Your task to perform on an android device: Go to sound settings Image 0: 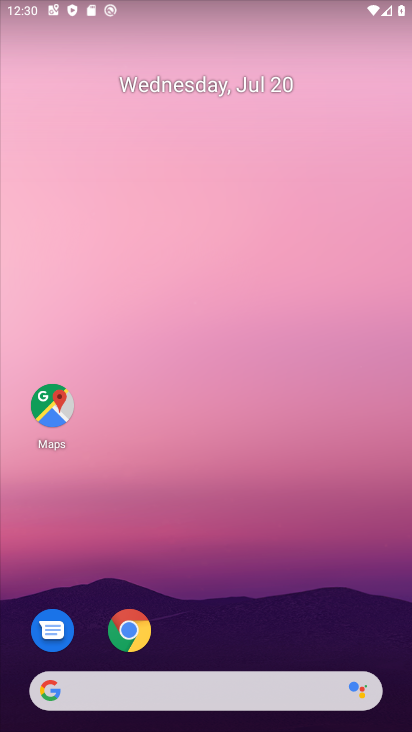
Step 0: drag from (226, 611) to (233, 205)
Your task to perform on an android device: Go to sound settings Image 1: 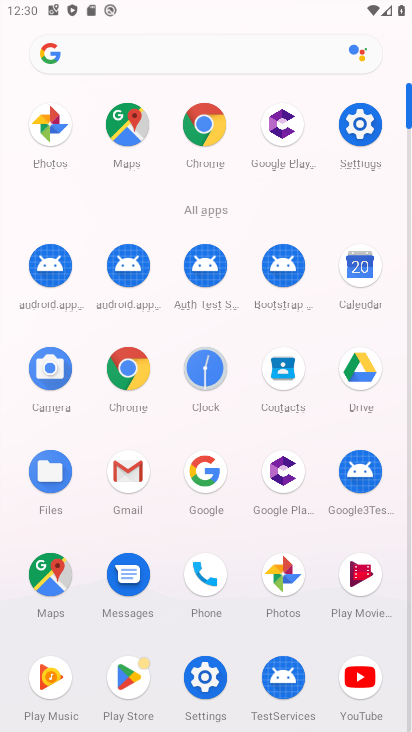
Step 1: click (361, 121)
Your task to perform on an android device: Go to sound settings Image 2: 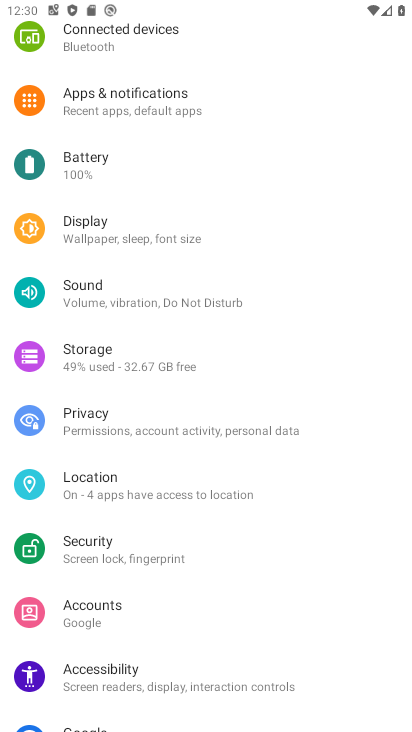
Step 2: click (100, 294)
Your task to perform on an android device: Go to sound settings Image 3: 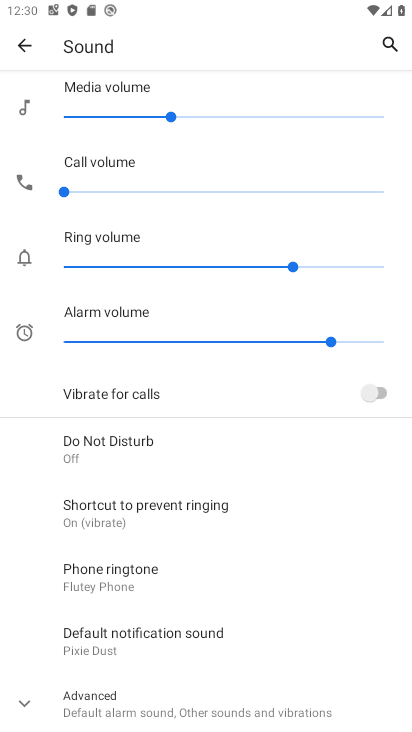
Step 3: task complete